Your task to perform on an android device: turn off smart reply in the gmail app Image 0: 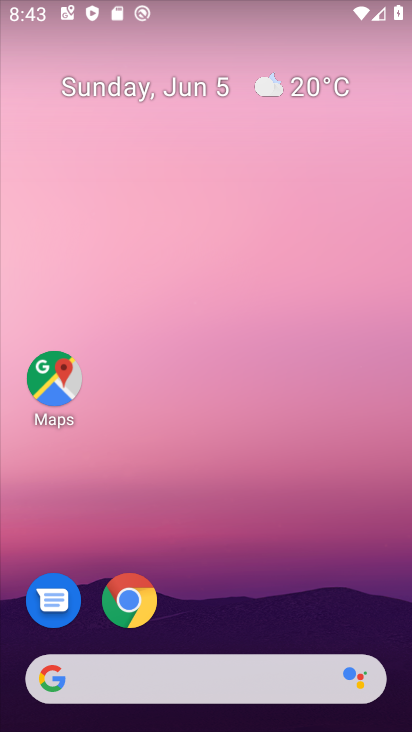
Step 0: drag from (213, 434) to (221, 15)
Your task to perform on an android device: turn off smart reply in the gmail app Image 1: 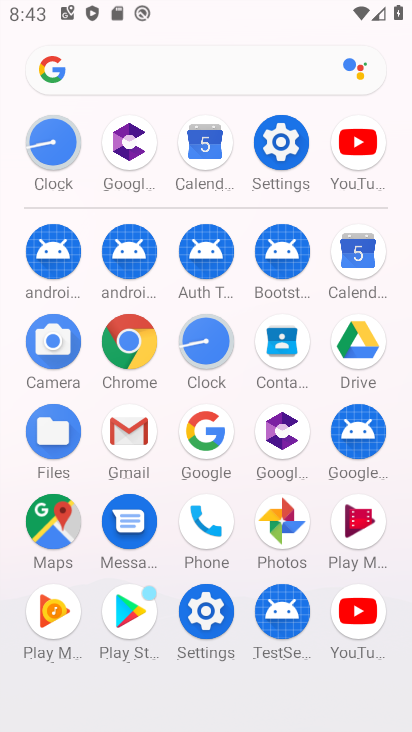
Step 1: click (132, 434)
Your task to perform on an android device: turn off smart reply in the gmail app Image 2: 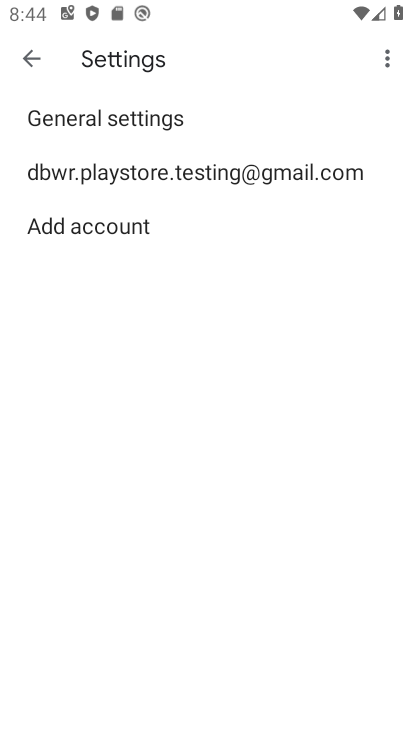
Step 2: click (32, 51)
Your task to perform on an android device: turn off smart reply in the gmail app Image 3: 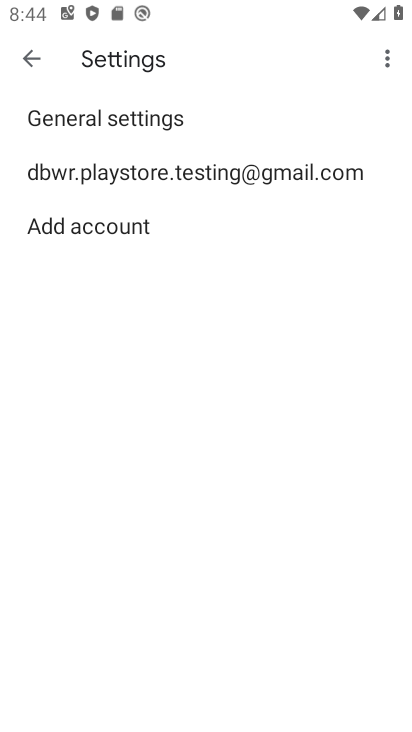
Step 3: click (81, 172)
Your task to perform on an android device: turn off smart reply in the gmail app Image 4: 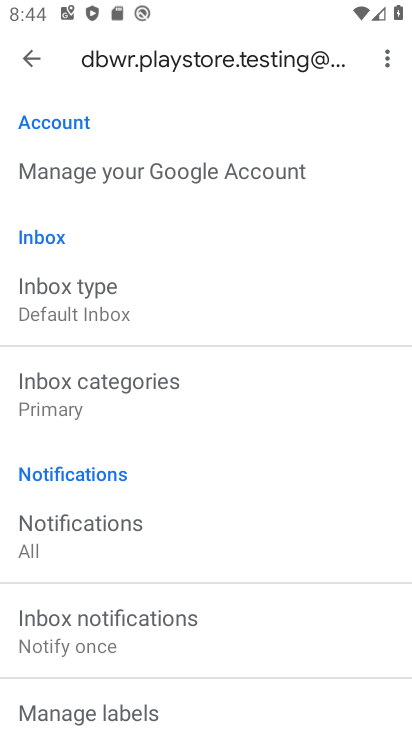
Step 4: drag from (222, 435) to (238, 0)
Your task to perform on an android device: turn off smart reply in the gmail app Image 5: 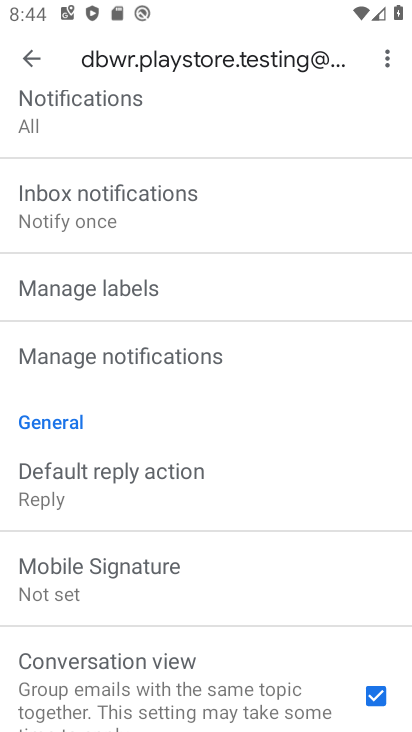
Step 5: drag from (269, 637) to (274, 142)
Your task to perform on an android device: turn off smart reply in the gmail app Image 6: 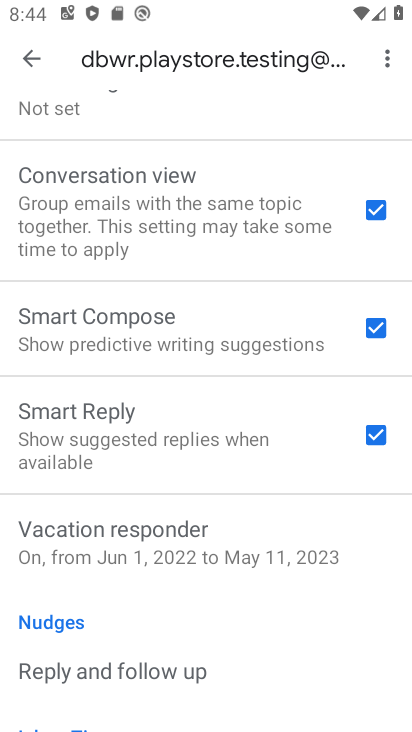
Step 6: click (373, 430)
Your task to perform on an android device: turn off smart reply in the gmail app Image 7: 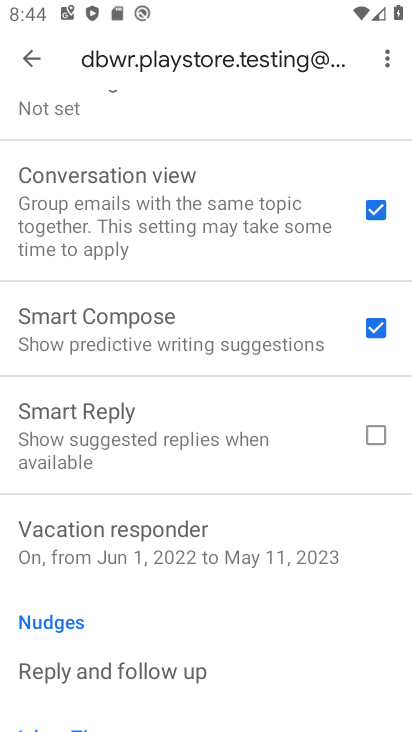
Step 7: task complete